Your task to perform on an android device: turn on data saver in the chrome app Image 0: 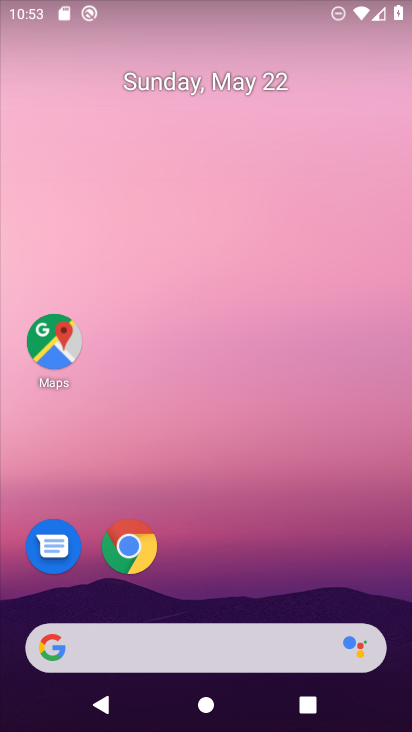
Step 0: drag from (237, 571) to (305, 11)
Your task to perform on an android device: turn on data saver in the chrome app Image 1: 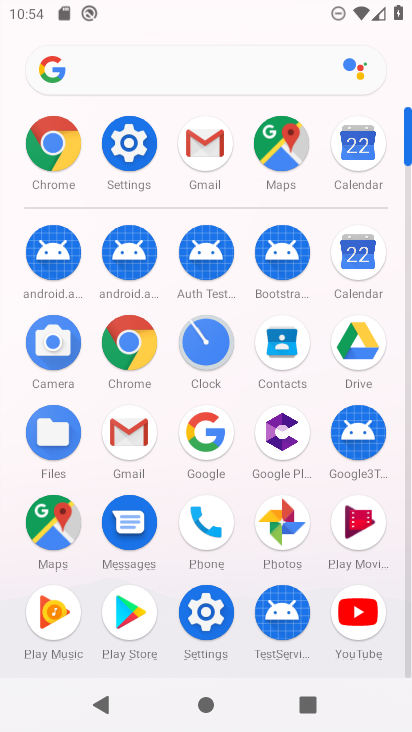
Step 1: click (125, 339)
Your task to perform on an android device: turn on data saver in the chrome app Image 2: 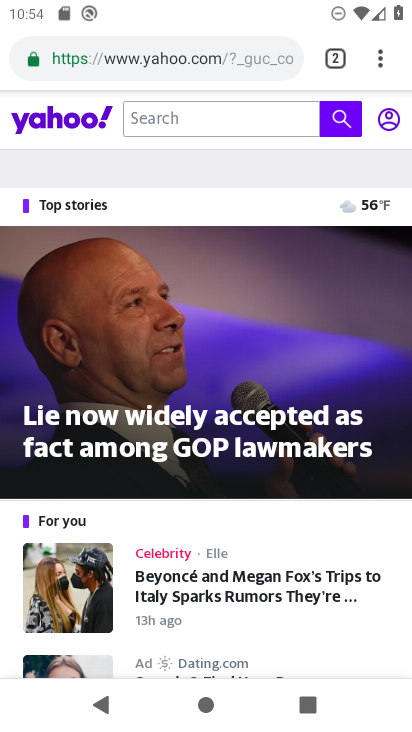
Step 2: click (382, 56)
Your task to perform on an android device: turn on data saver in the chrome app Image 3: 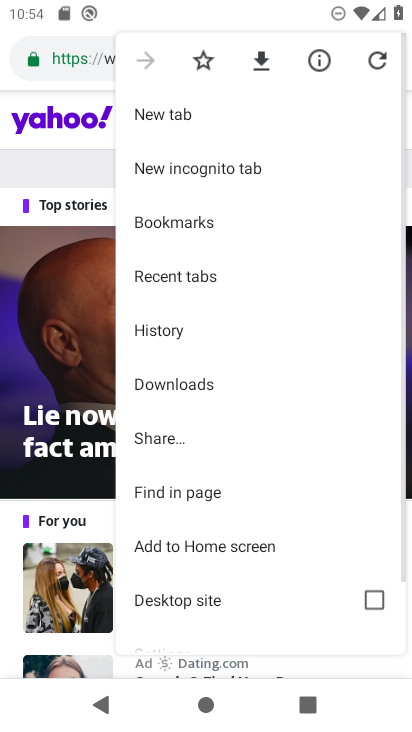
Step 3: drag from (179, 603) to (220, 313)
Your task to perform on an android device: turn on data saver in the chrome app Image 4: 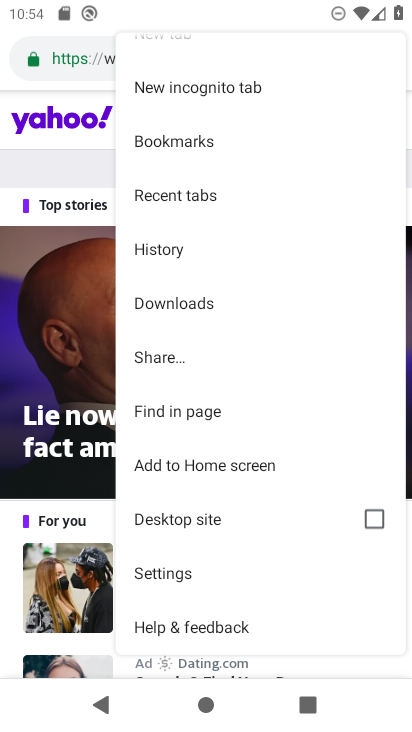
Step 4: click (179, 577)
Your task to perform on an android device: turn on data saver in the chrome app Image 5: 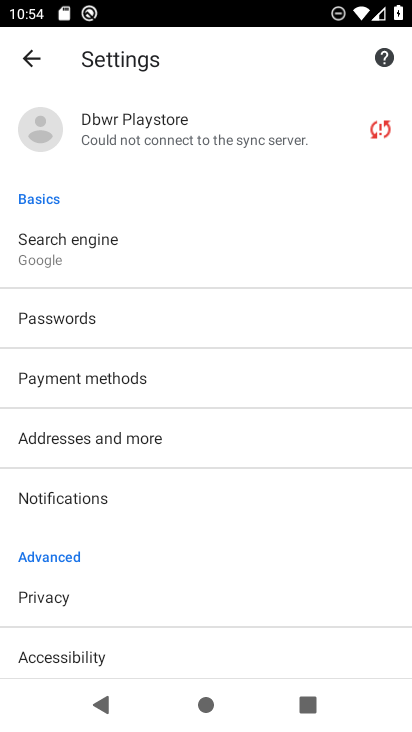
Step 5: drag from (88, 565) to (174, 163)
Your task to perform on an android device: turn on data saver in the chrome app Image 6: 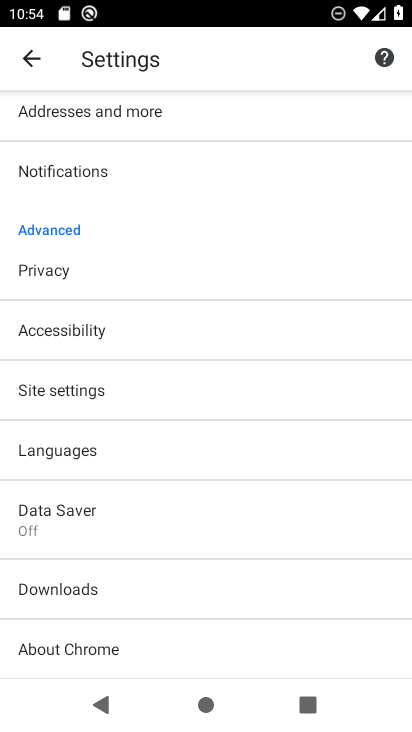
Step 6: drag from (171, 636) to (209, 327)
Your task to perform on an android device: turn on data saver in the chrome app Image 7: 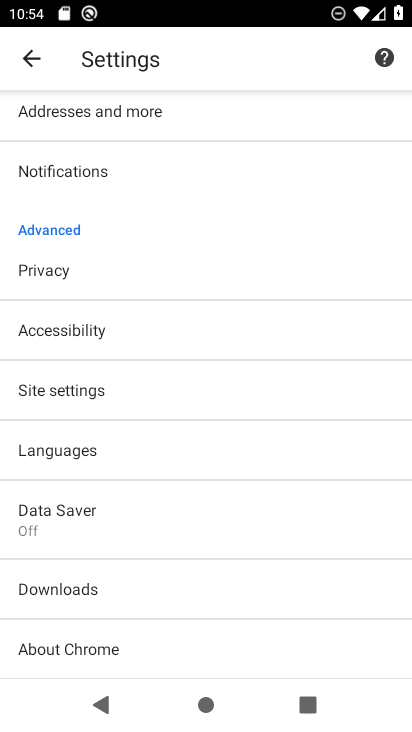
Step 7: click (95, 527)
Your task to perform on an android device: turn on data saver in the chrome app Image 8: 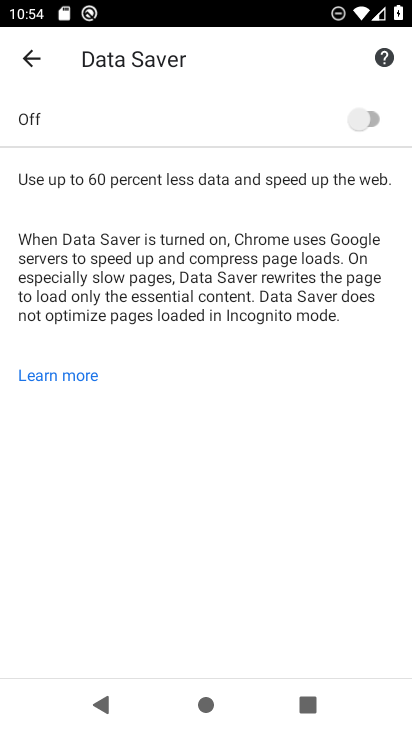
Step 8: click (372, 106)
Your task to perform on an android device: turn on data saver in the chrome app Image 9: 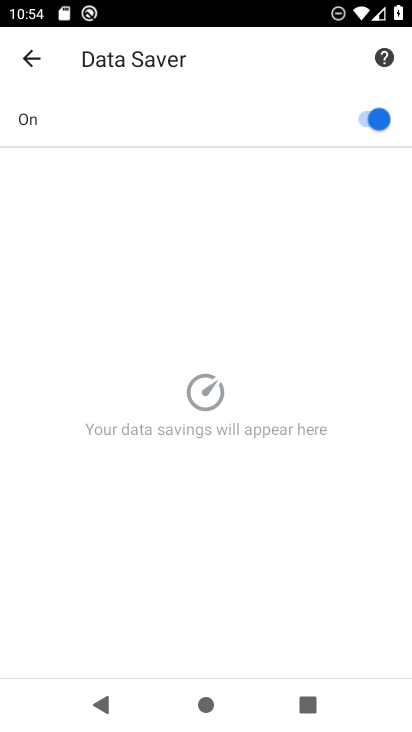
Step 9: task complete